Your task to perform on an android device: star an email in the gmail app Image 0: 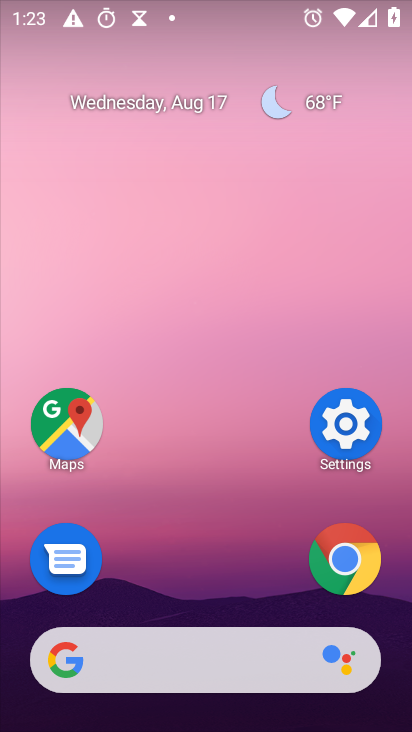
Step 0: drag from (189, 558) to (246, 185)
Your task to perform on an android device: star an email in the gmail app Image 1: 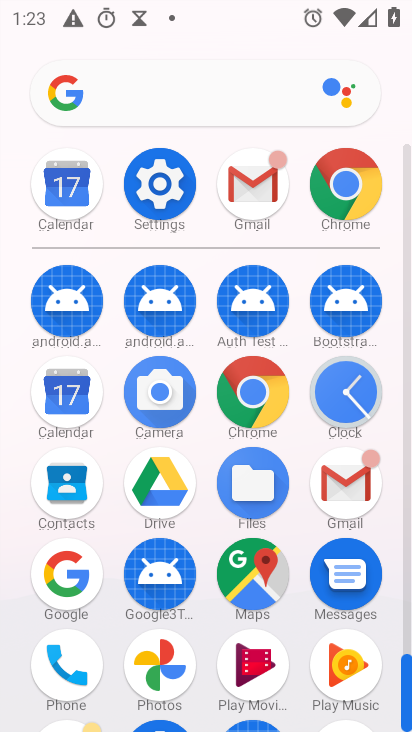
Step 1: click (260, 196)
Your task to perform on an android device: star an email in the gmail app Image 2: 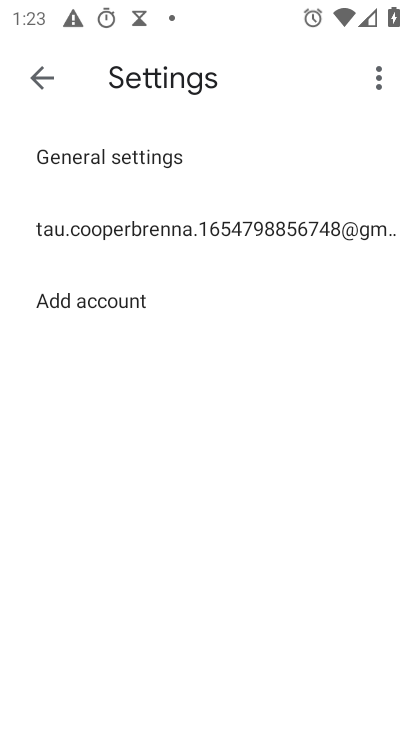
Step 2: click (48, 71)
Your task to perform on an android device: star an email in the gmail app Image 3: 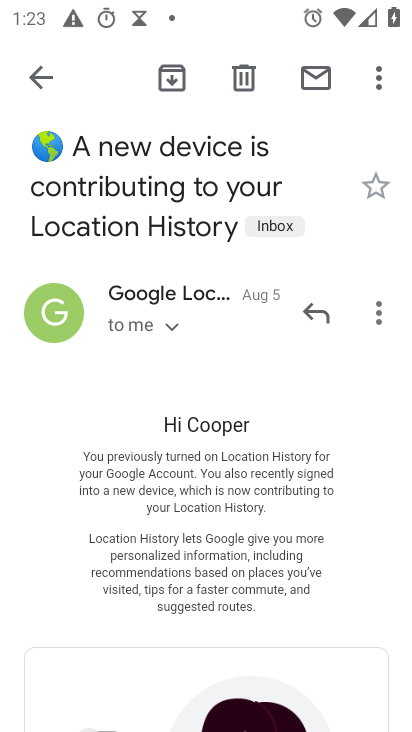
Step 3: press back button
Your task to perform on an android device: star an email in the gmail app Image 4: 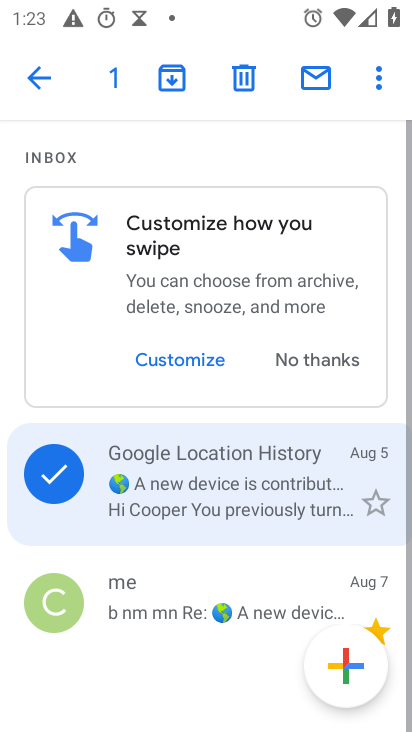
Step 4: drag from (192, 523) to (247, 151)
Your task to perform on an android device: star an email in the gmail app Image 5: 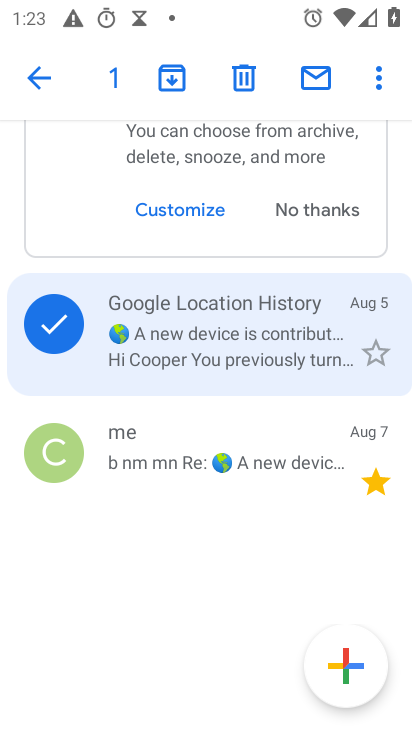
Step 5: click (377, 68)
Your task to perform on an android device: star an email in the gmail app Image 6: 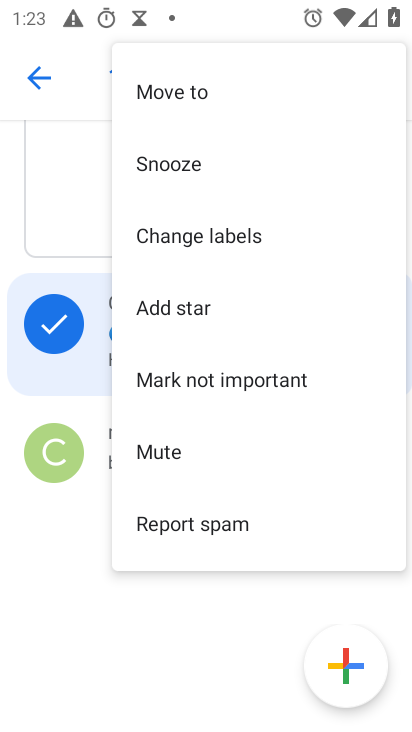
Step 6: click (191, 302)
Your task to perform on an android device: star an email in the gmail app Image 7: 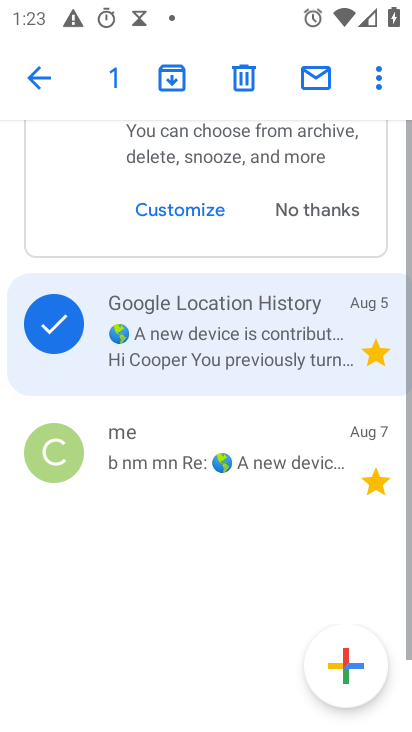
Step 7: click (57, 334)
Your task to perform on an android device: star an email in the gmail app Image 8: 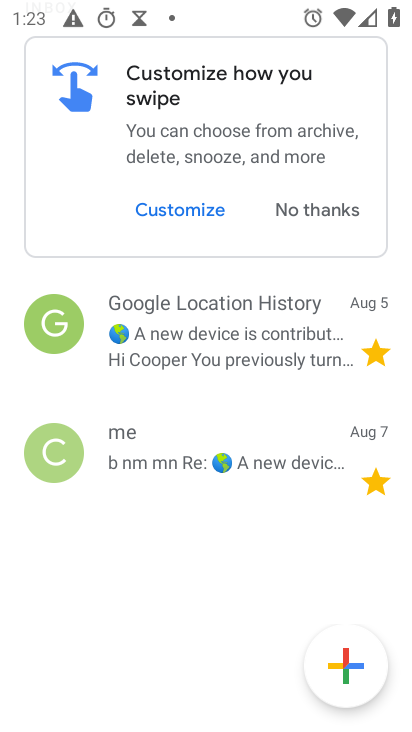
Step 8: task complete